Your task to perform on an android device: open app "Pluto TV - Live TV and Movies" (install if not already installed), go to login, and select forgot password Image 0: 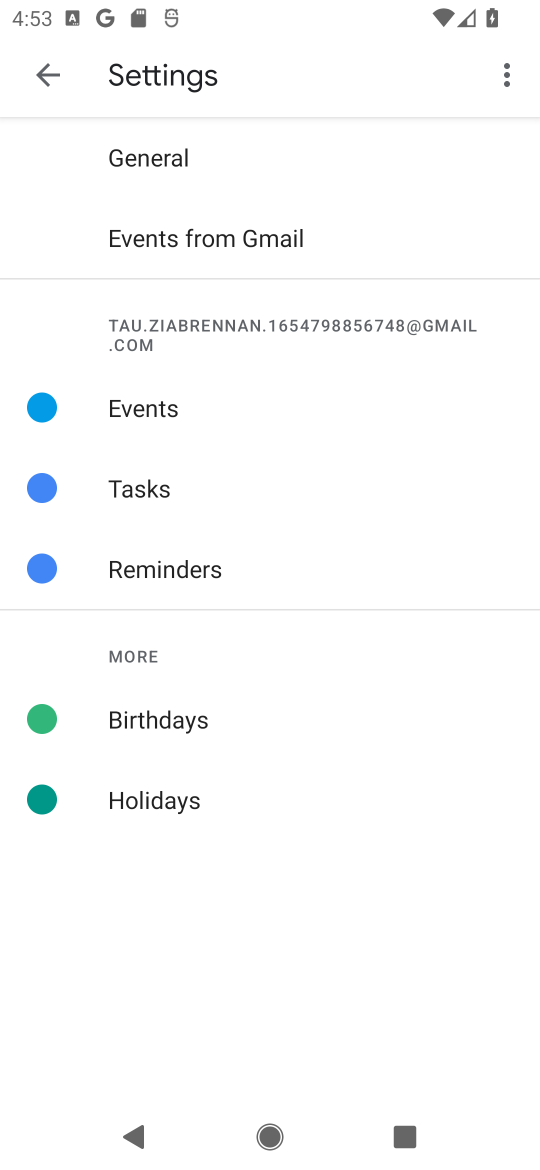
Step 0: click (54, 82)
Your task to perform on an android device: open app "Pluto TV - Live TV and Movies" (install if not already installed), go to login, and select forgot password Image 1: 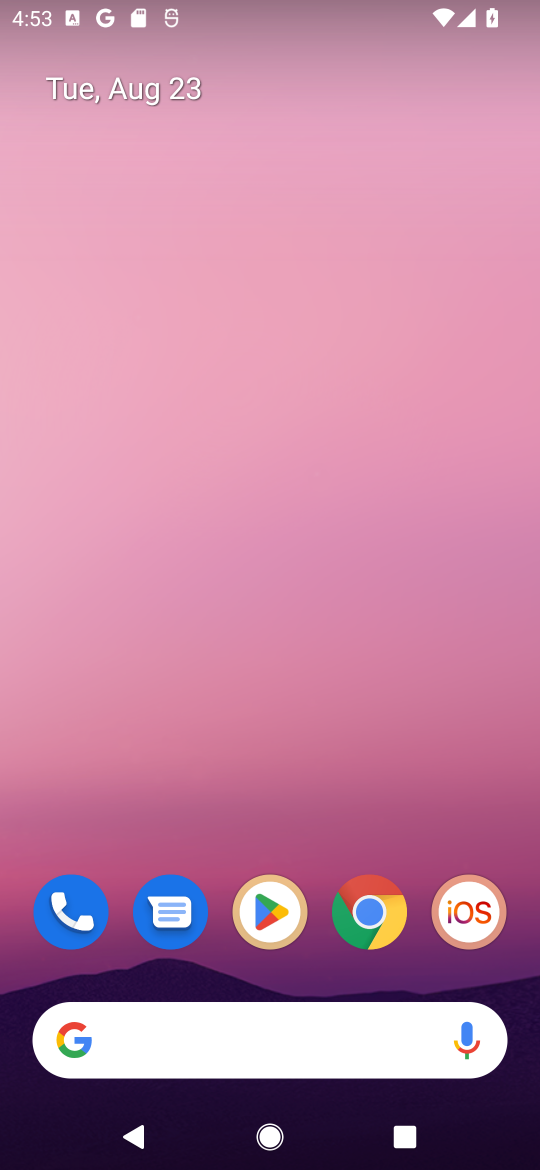
Step 1: drag from (214, 1003) to (210, 337)
Your task to perform on an android device: open app "Pluto TV - Live TV and Movies" (install if not already installed), go to login, and select forgot password Image 2: 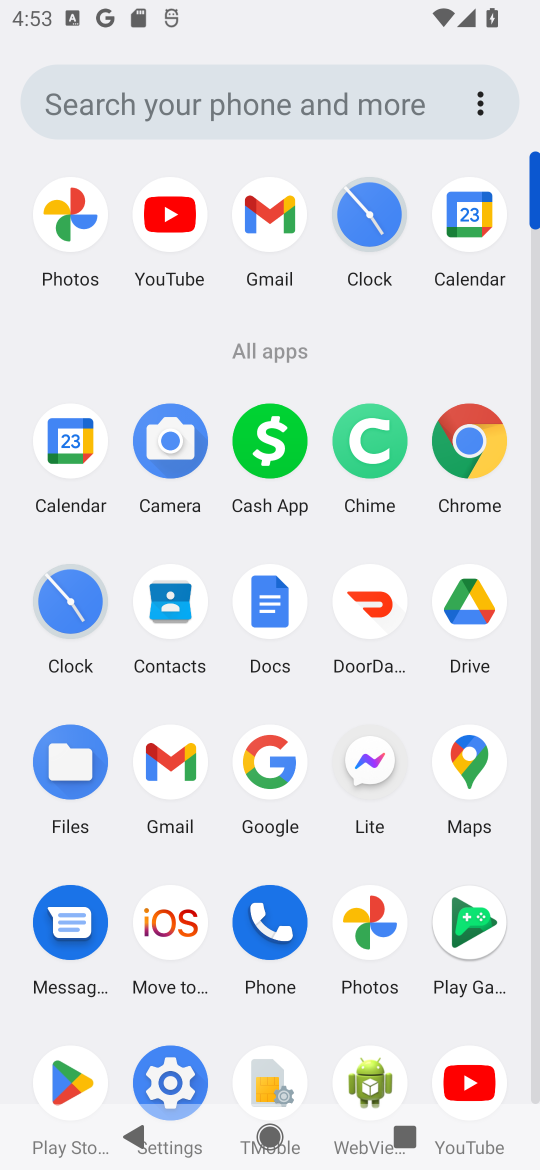
Step 2: click (64, 1069)
Your task to perform on an android device: open app "Pluto TV - Live TV and Movies" (install if not already installed), go to login, and select forgot password Image 3: 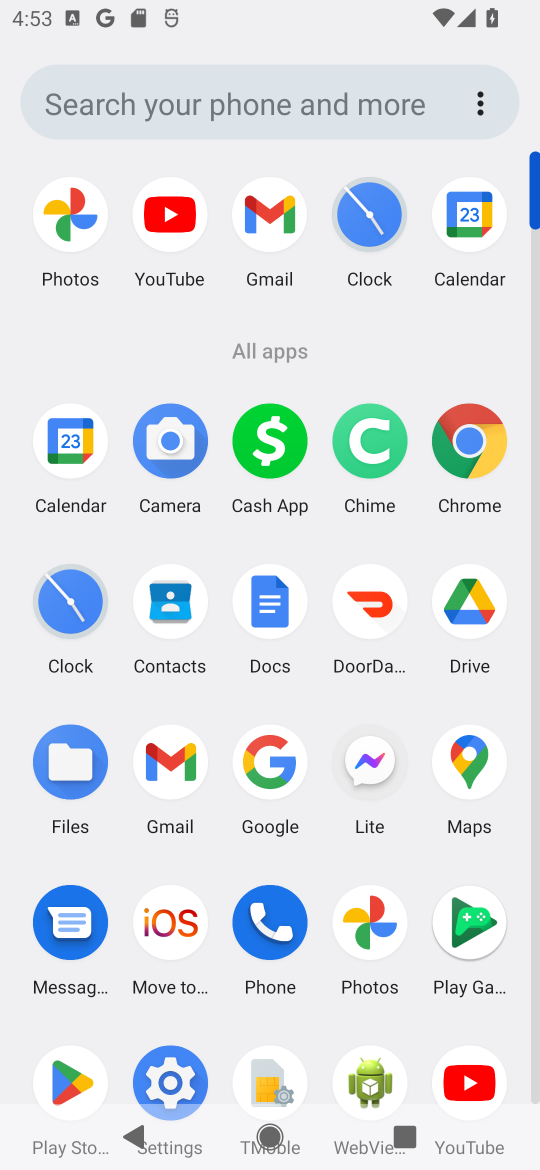
Step 3: click (64, 1069)
Your task to perform on an android device: open app "Pluto TV - Live TV and Movies" (install if not already installed), go to login, and select forgot password Image 4: 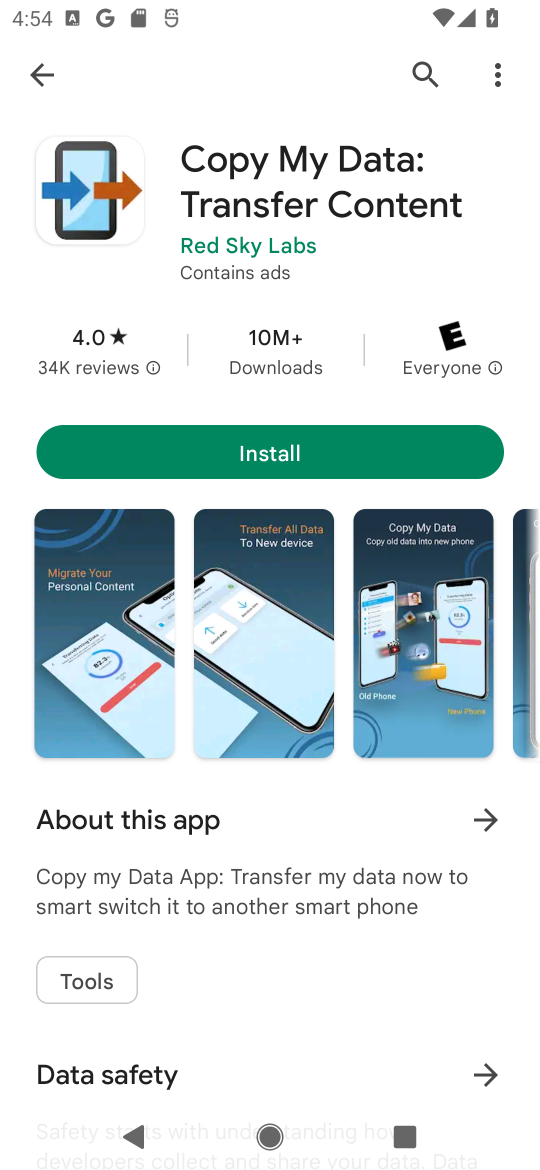
Step 4: click (27, 92)
Your task to perform on an android device: open app "Pluto TV - Live TV and Movies" (install if not already installed), go to login, and select forgot password Image 5: 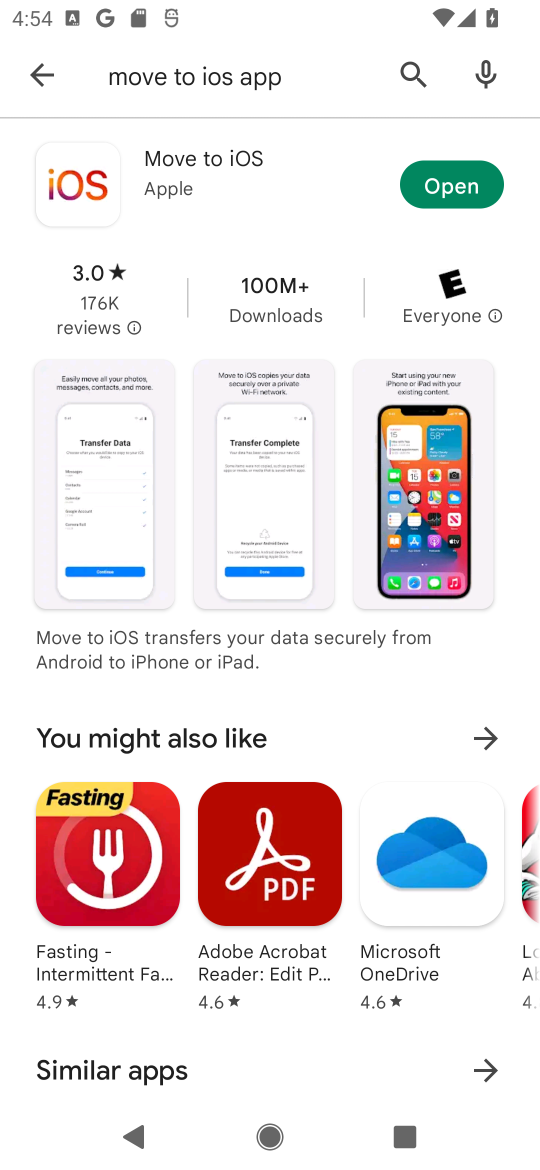
Step 5: click (40, 65)
Your task to perform on an android device: open app "Pluto TV - Live TV and Movies" (install if not already installed), go to login, and select forgot password Image 6: 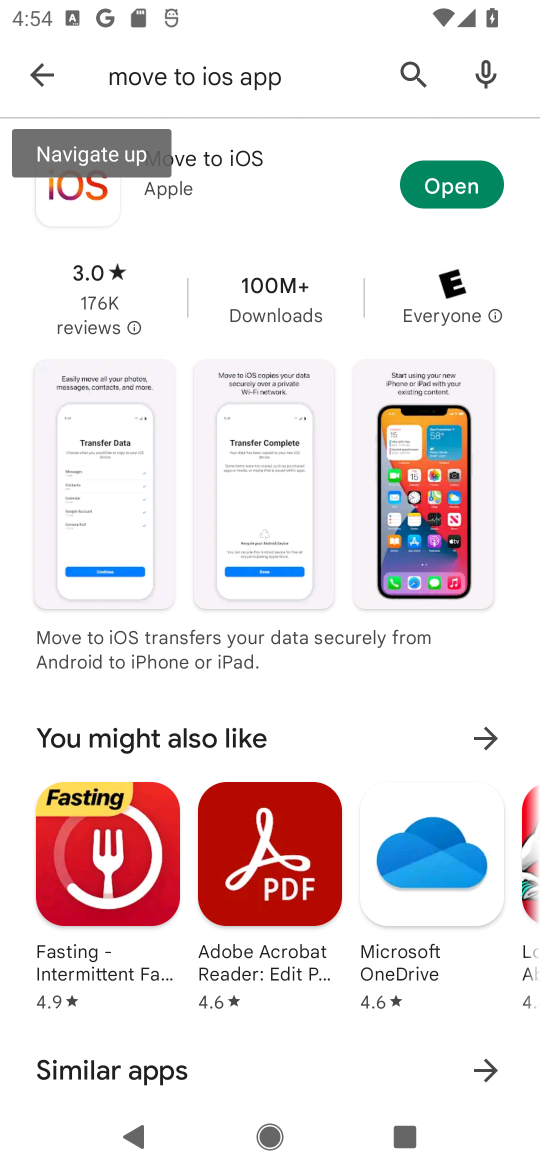
Step 6: click (40, 65)
Your task to perform on an android device: open app "Pluto TV - Live TV and Movies" (install if not already installed), go to login, and select forgot password Image 7: 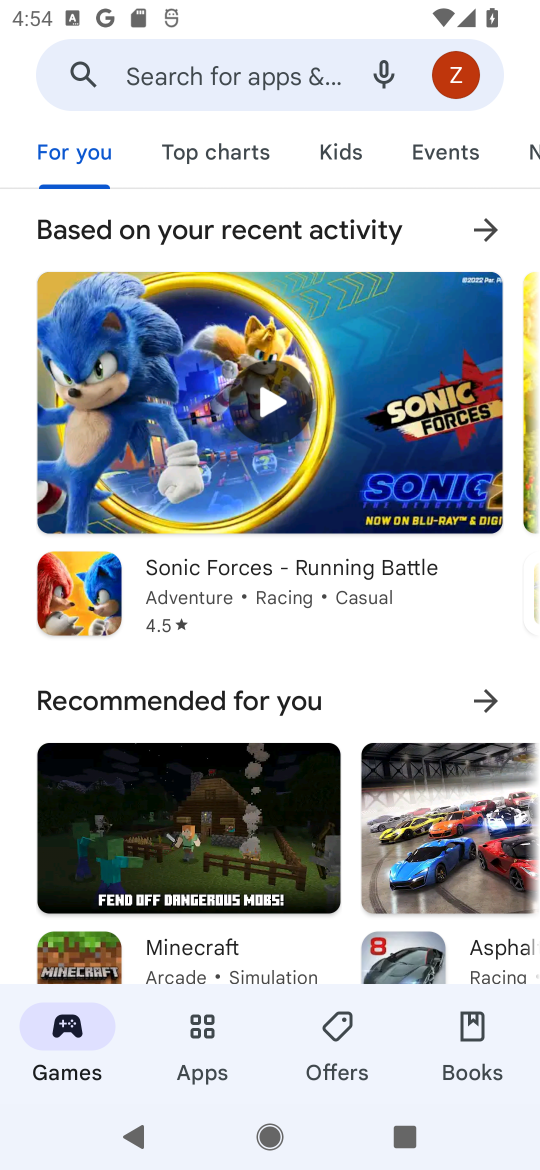
Step 7: click (186, 69)
Your task to perform on an android device: open app "Pluto TV - Live TV and Movies" (install if not already installed), go to login, and select forgot password Image 8: 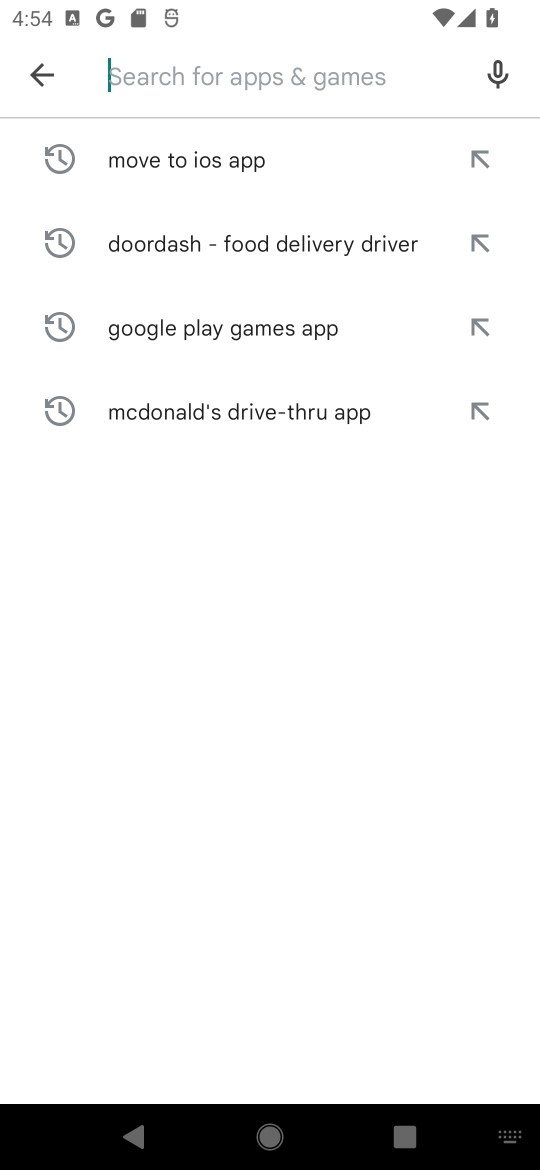
Step 8: type "Pluto TV - Live TV and Movies "
Your task to perform on an android device: open app "Pluto TV - Live TV and Movies" (install if not already installed), go to login, and select forgot password Image 9: 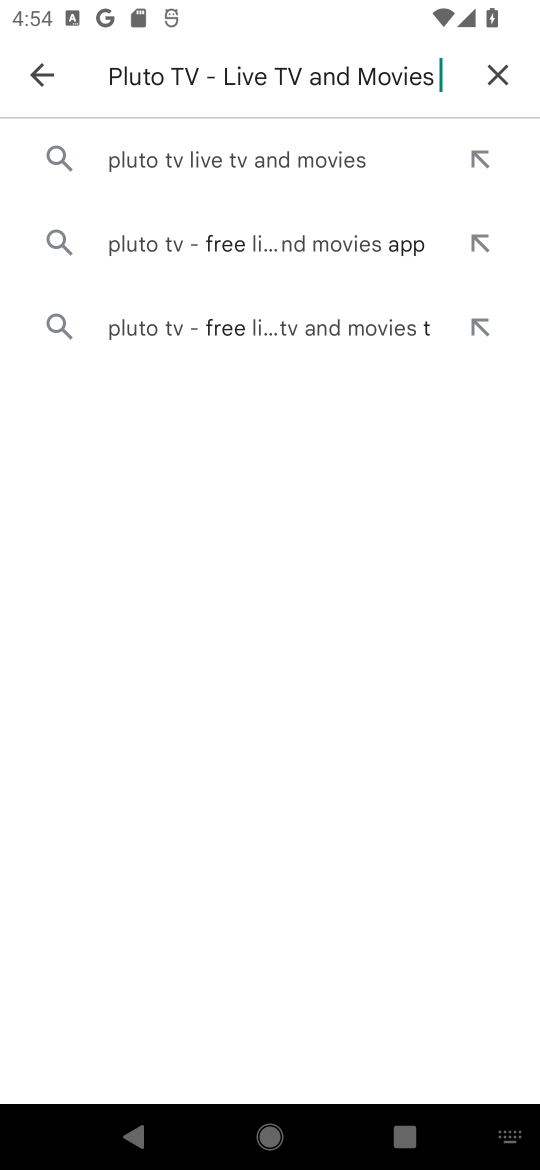
Step 9: click (258, 160)
Your task to perform on an android device: open app "Pluto TV - Live TV and Movies" (install if not already installed), go to login, and select forgot password Image 10: 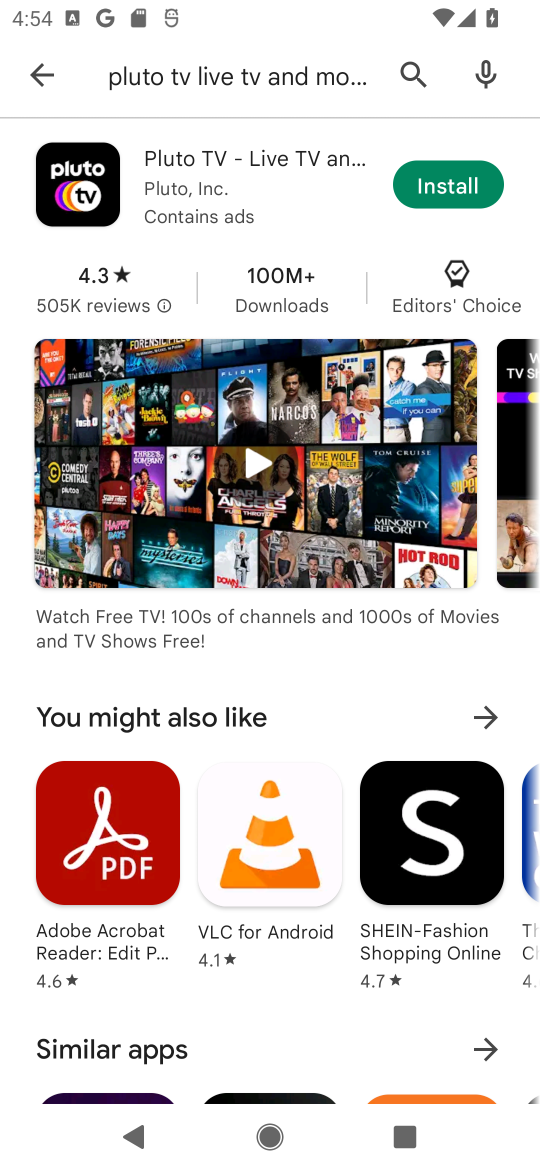
Step 10: click (427, 163)
Your task to perform on an android device: open app "Pluto TV - Live TV and Movies" (install if not already installed), go to login, and select forgot password Image 11: 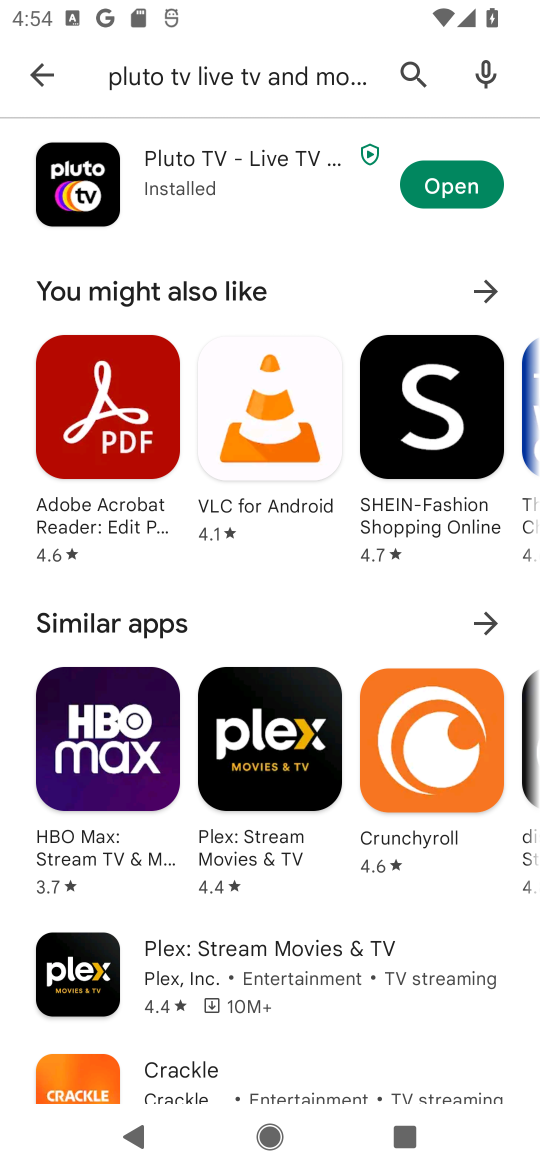
Step 11: click (409, 190)
Your task to perform on an android device: open app "Pluto TV - Live TV and Movies" (install if not already installed), go to login, and select forgot password Image 12: 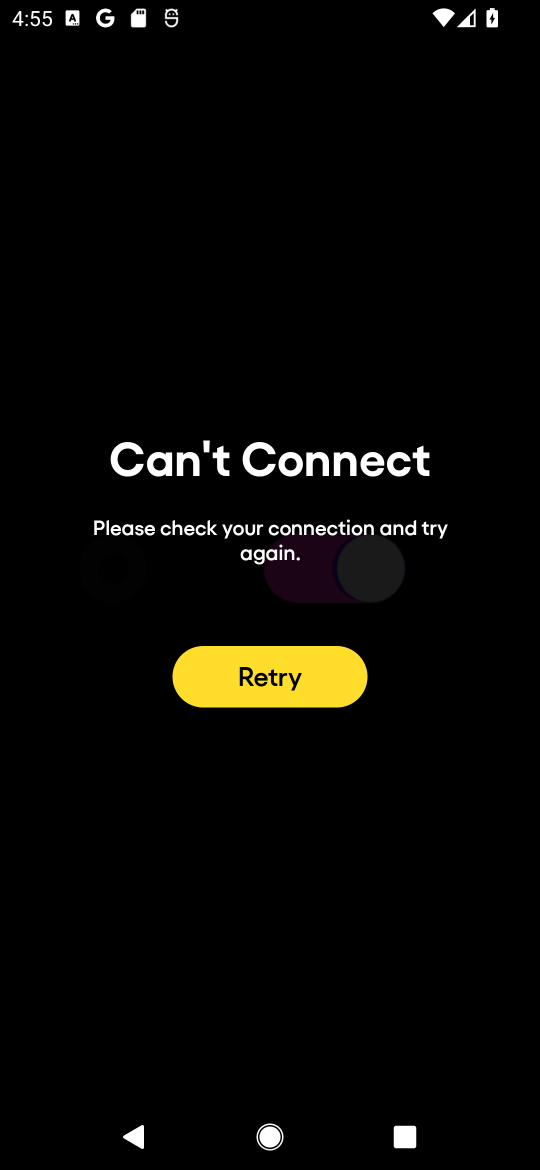
Step 12: task complete